Your task to perform on an android device: Go to Google maps Image 0: 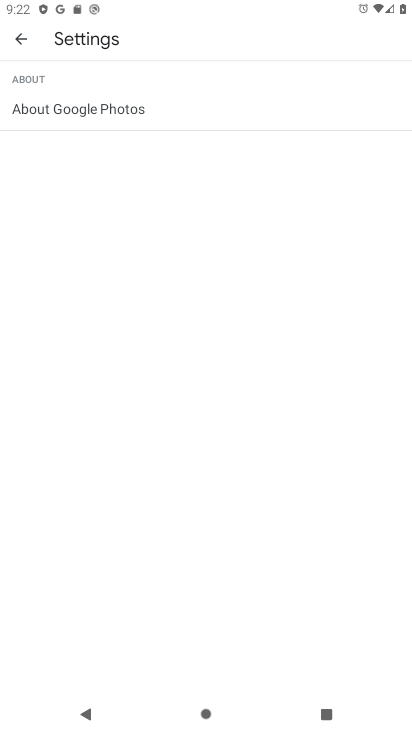
Step 0: press home button
Your task to perform on an android device: Go to Google maps Image 1: 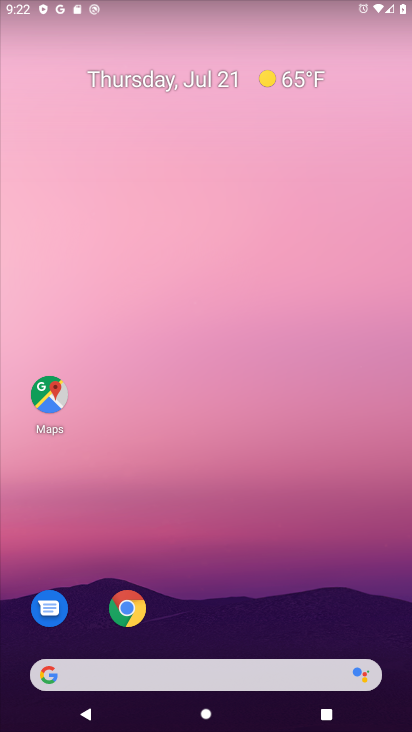
Step 1: click (46, 395)
Your task to perform on an android device: Go to Google maps Image 2: 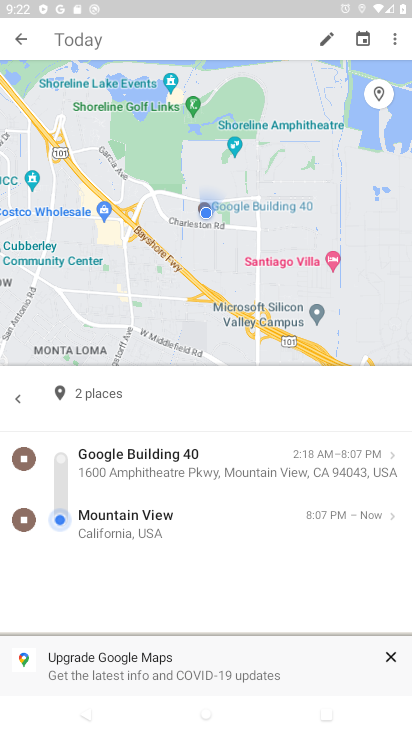
Step 2: task complete